Your task to perform on an android device: search for starred emails in the gmail app Image 0: 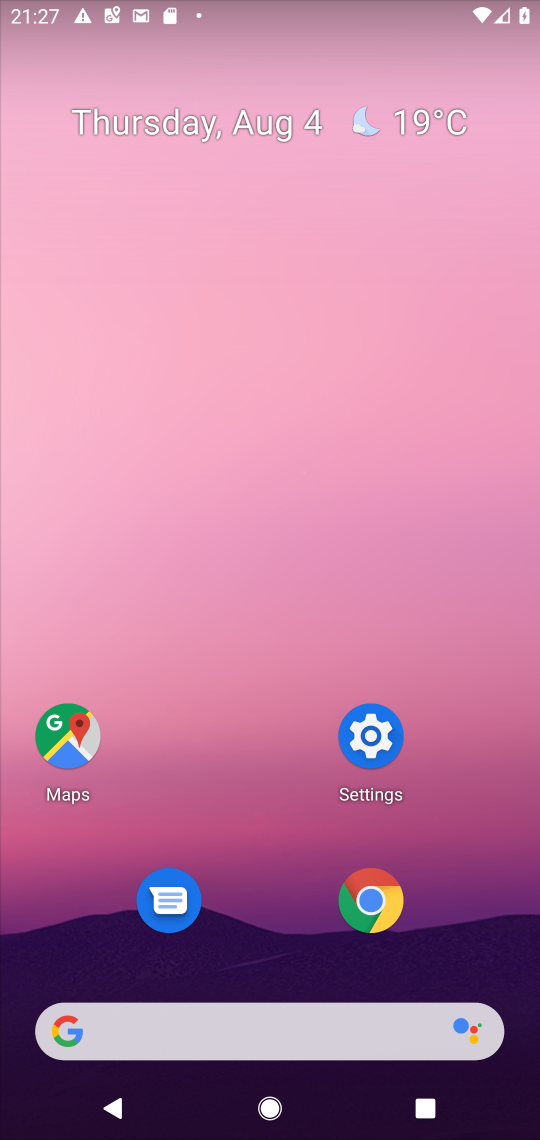
Step 0: press home button
Your task to perform on an android device: search for starred emails in the gmail app Image 1: 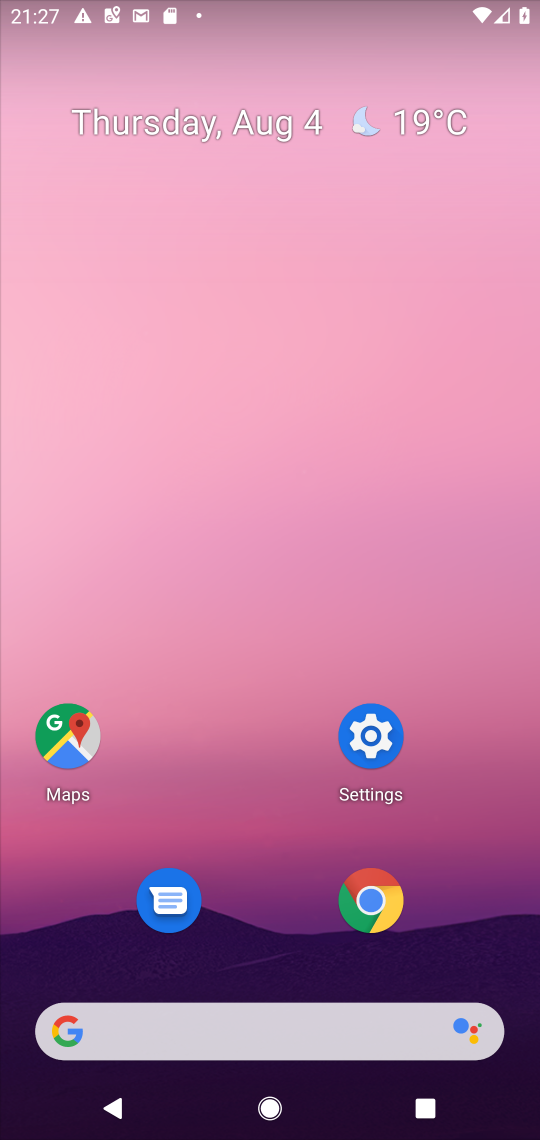
Step 1: drag from (251, 1006) to (427, 269)
Your task to perform on an android device: search for starred emails in the gmail app Image 2: 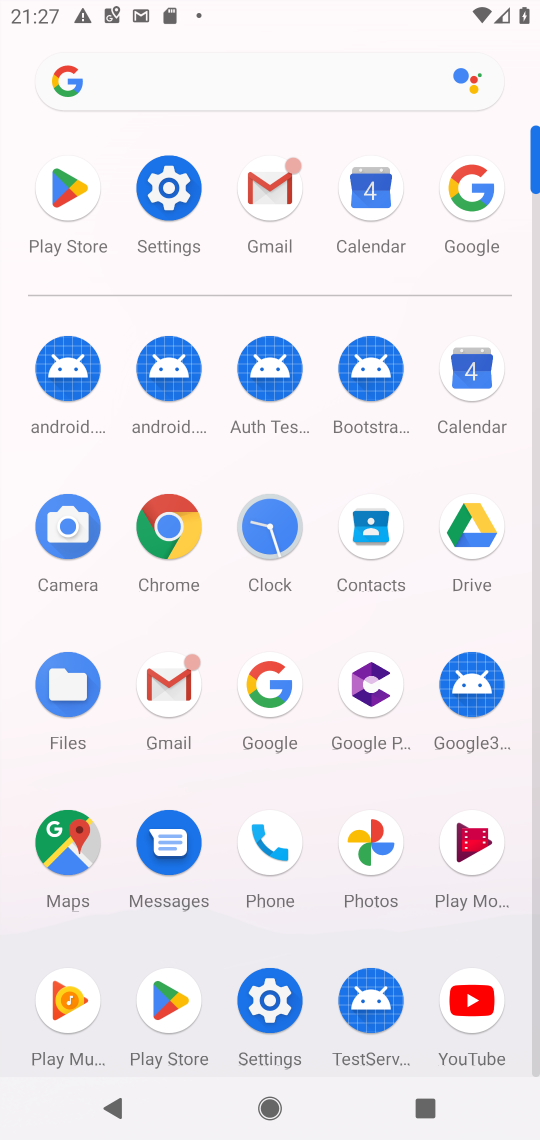
Step 2: click (263, 194)
Your task to perform on an android device: search for starred emails in the gmail app Image 3: 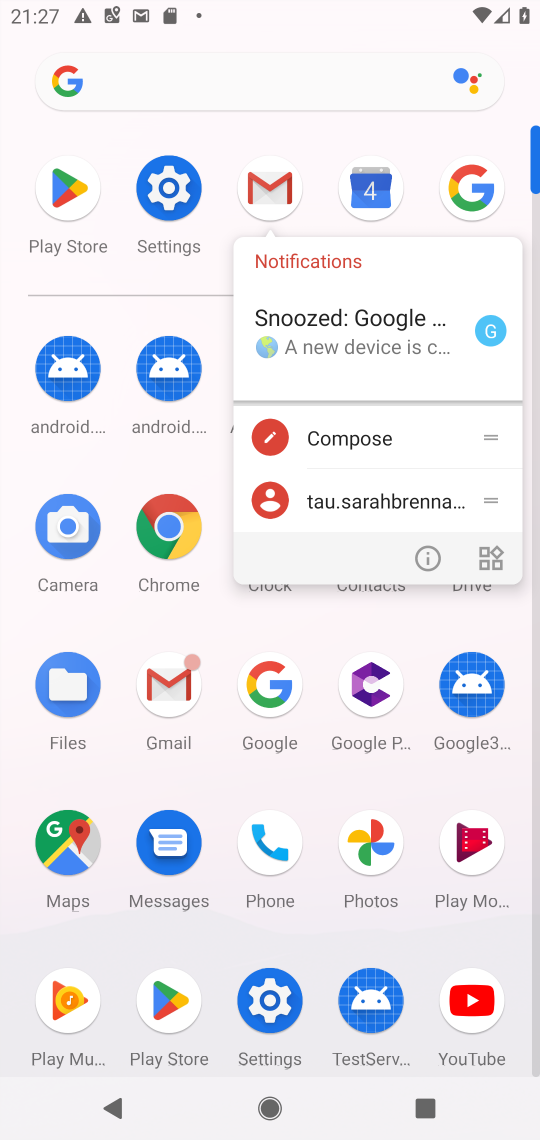
Step 3: click (263, 192)
Your task to perform on an android device: search for starred emails in the gmail app Image 4: 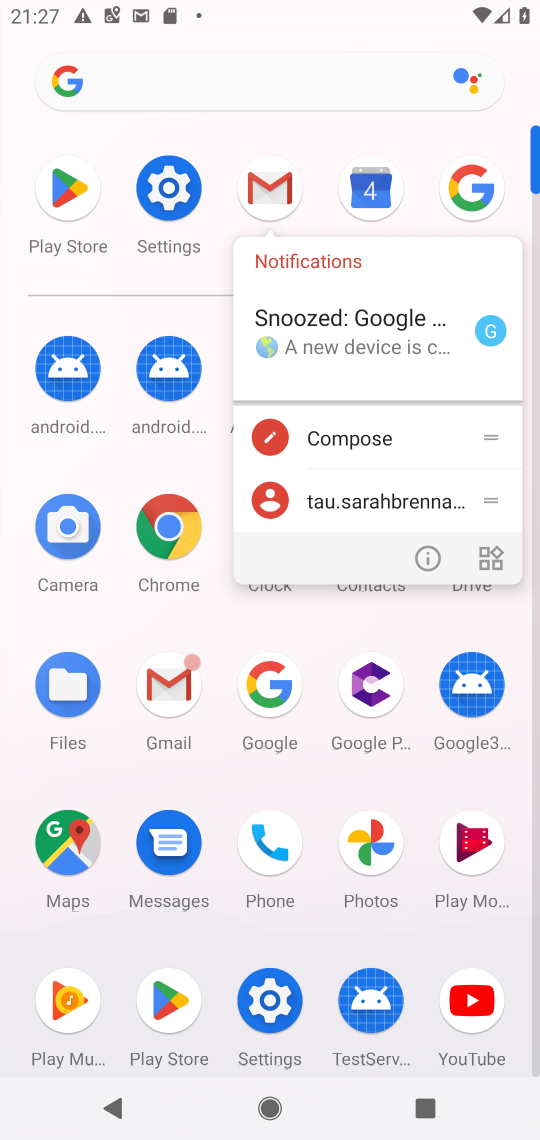
Step 4: click (263, 194)
Your task to perform on an android device: search for starred emails in the gmail app Image 5: 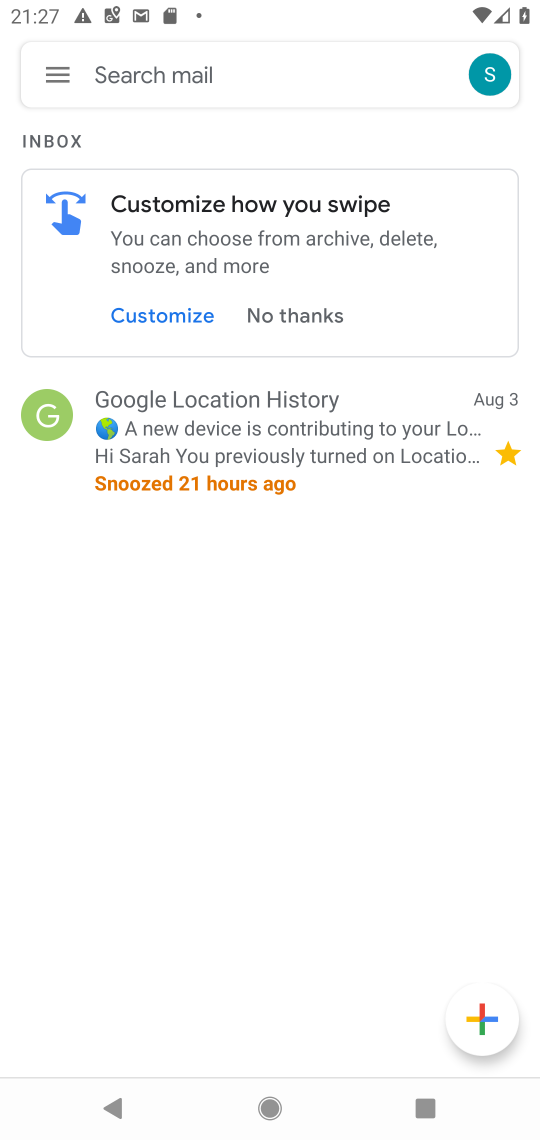
Step 5: click (52, 66)
Your task to perform on an android device: search for starred emails in the gmail app Image 6: 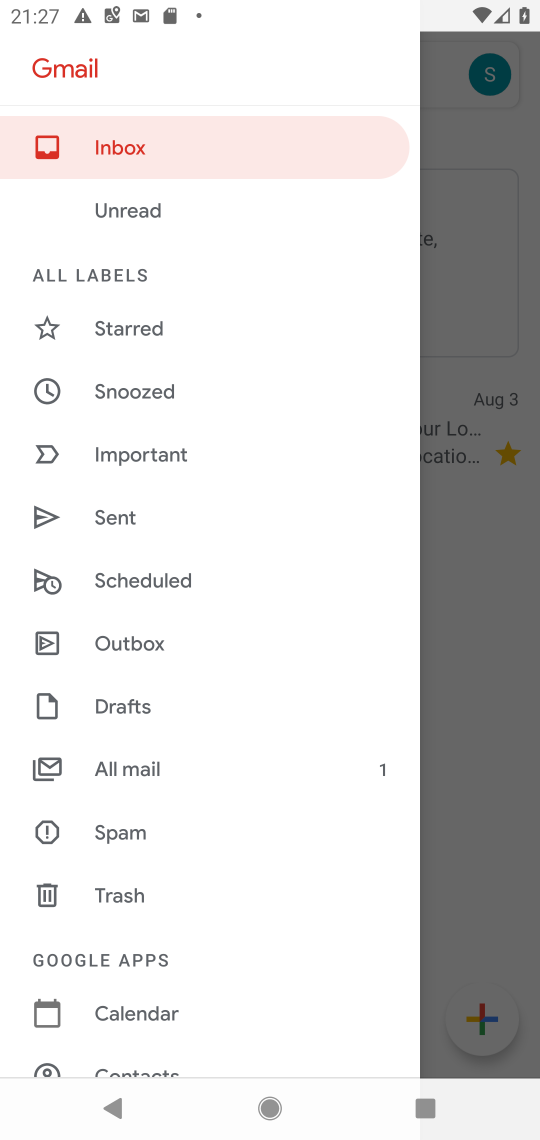
Step 6: click (159, 335)
Your task to perform on an android device: search for starred emails in the gmail app Image 7: 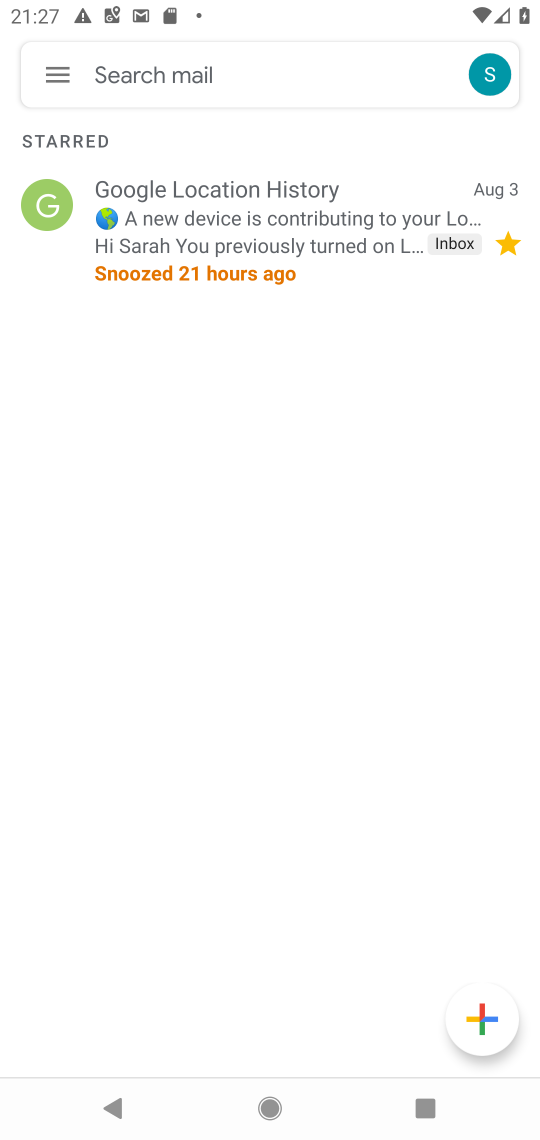
Step 7: task complete